Your task to perform on an android device: delete a single message in the gmail app Image 0: 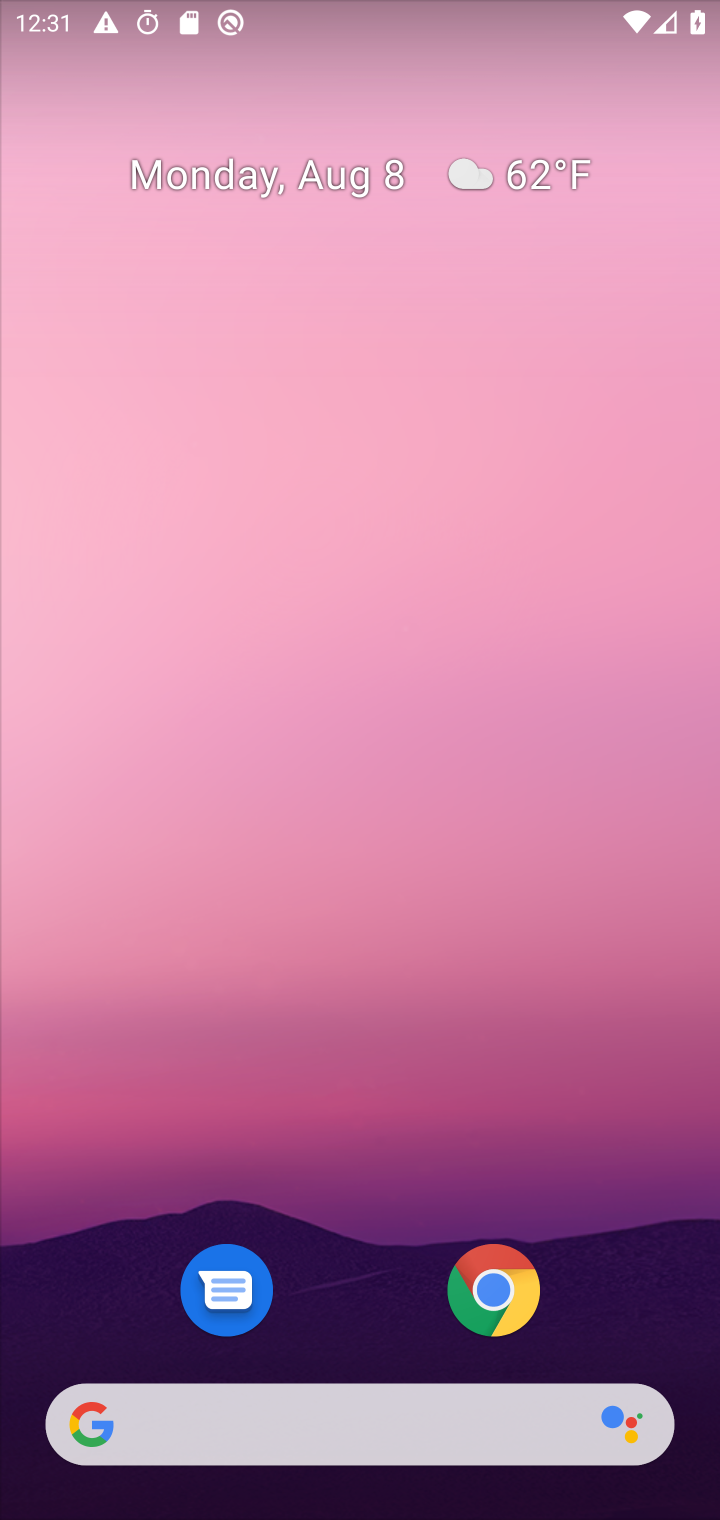
Step 0: drag from (334, 1240) to (399, 542)
Your task to perform on an android device: delete a single message in the gmail app Image 1: 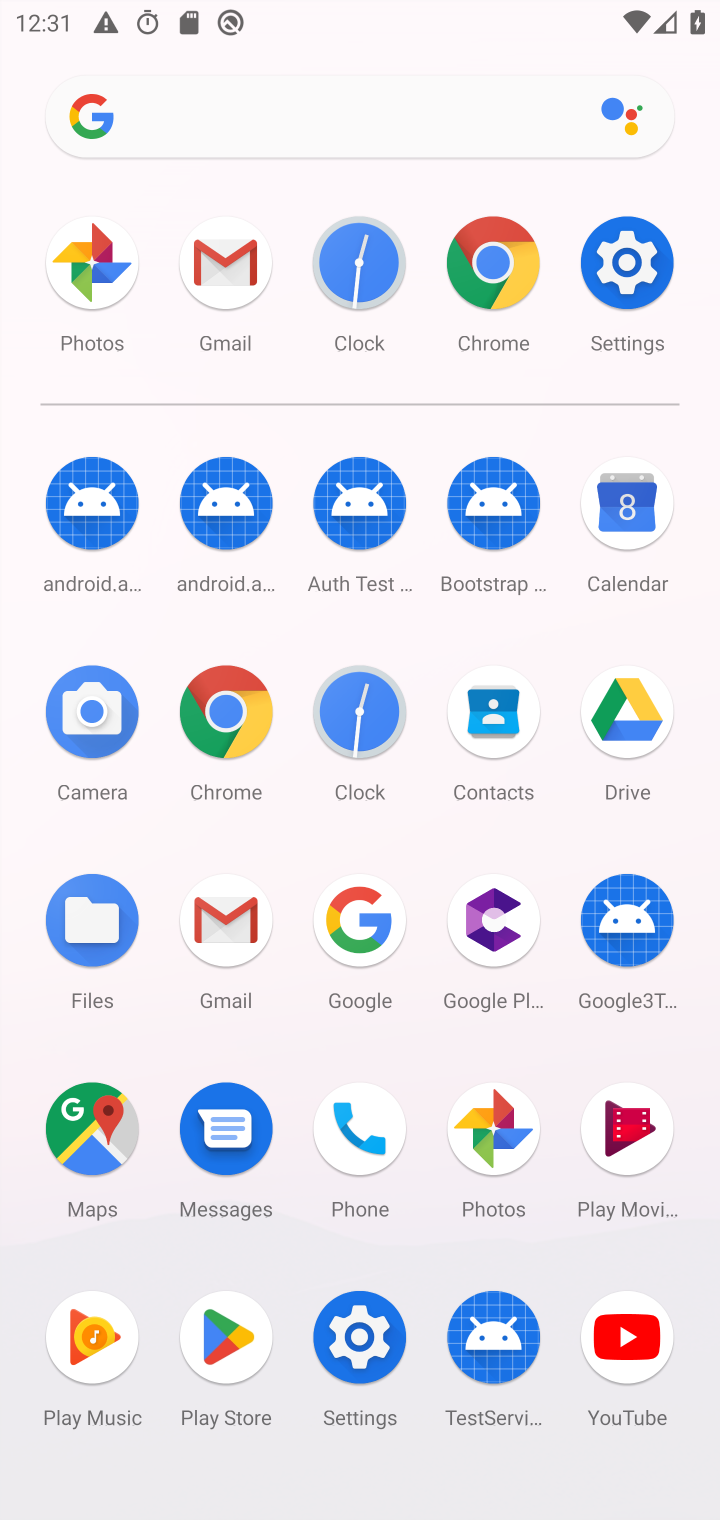
Step 1: click (231, 947)
Your task to perform on an android device: delete a single message in the gmail app Image 2: 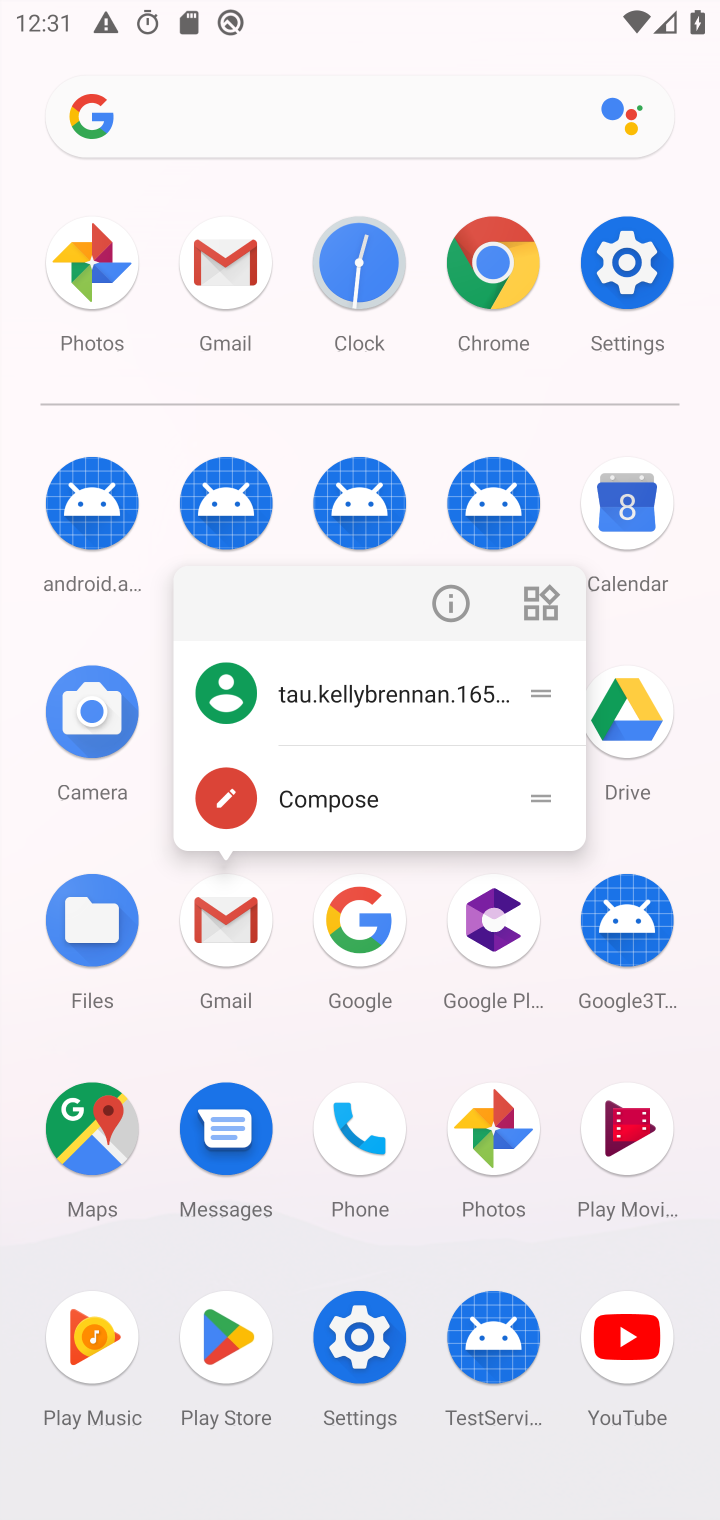
Step 2: click (231, 947)
Your task to perform on an android device: delete a single message in the gmail app Image 3: 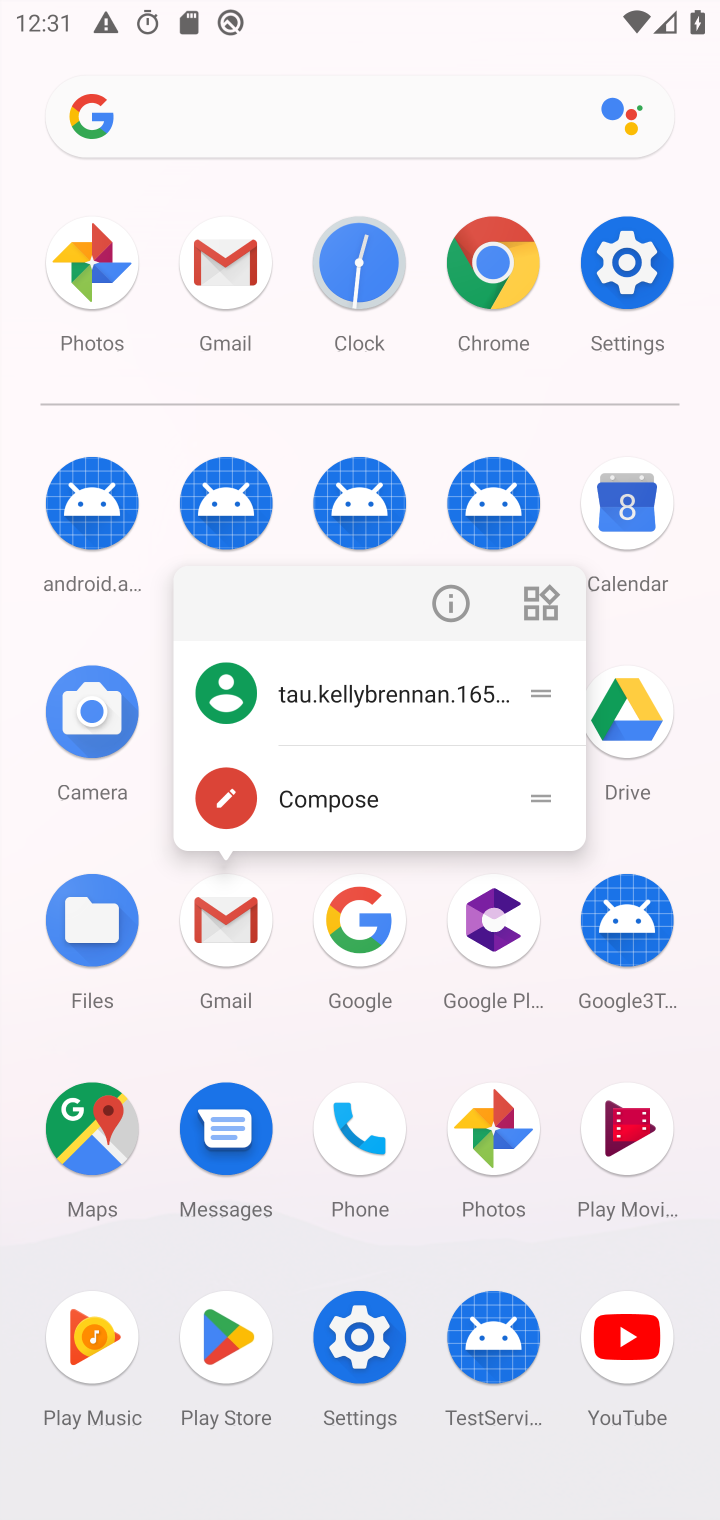
Step 3: click (227, 949)
Your task to perform on an android device: delete a single message in the gmail app Image 4: 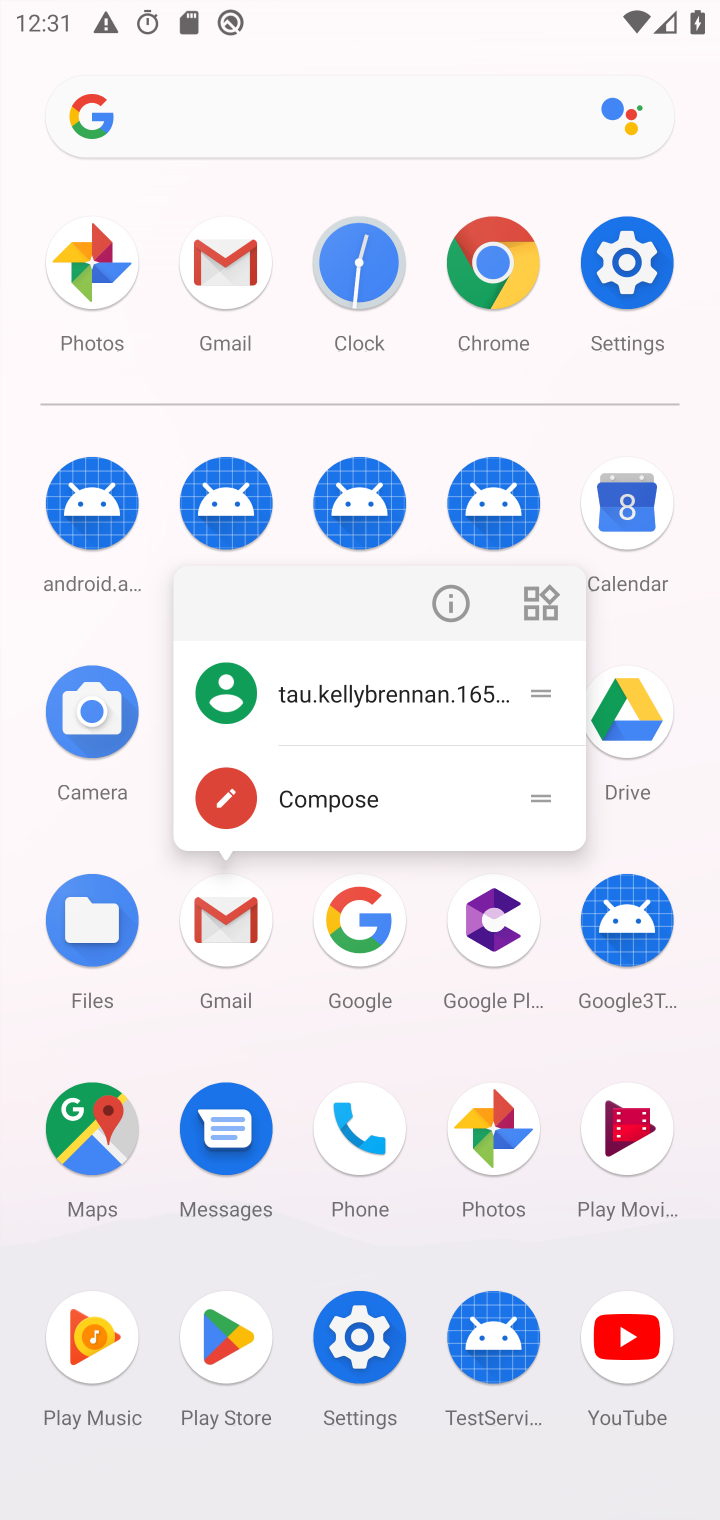
Step 4: click (227, 949)
Your task to perform on an android device: delete a single message in the gmail app Image 5: 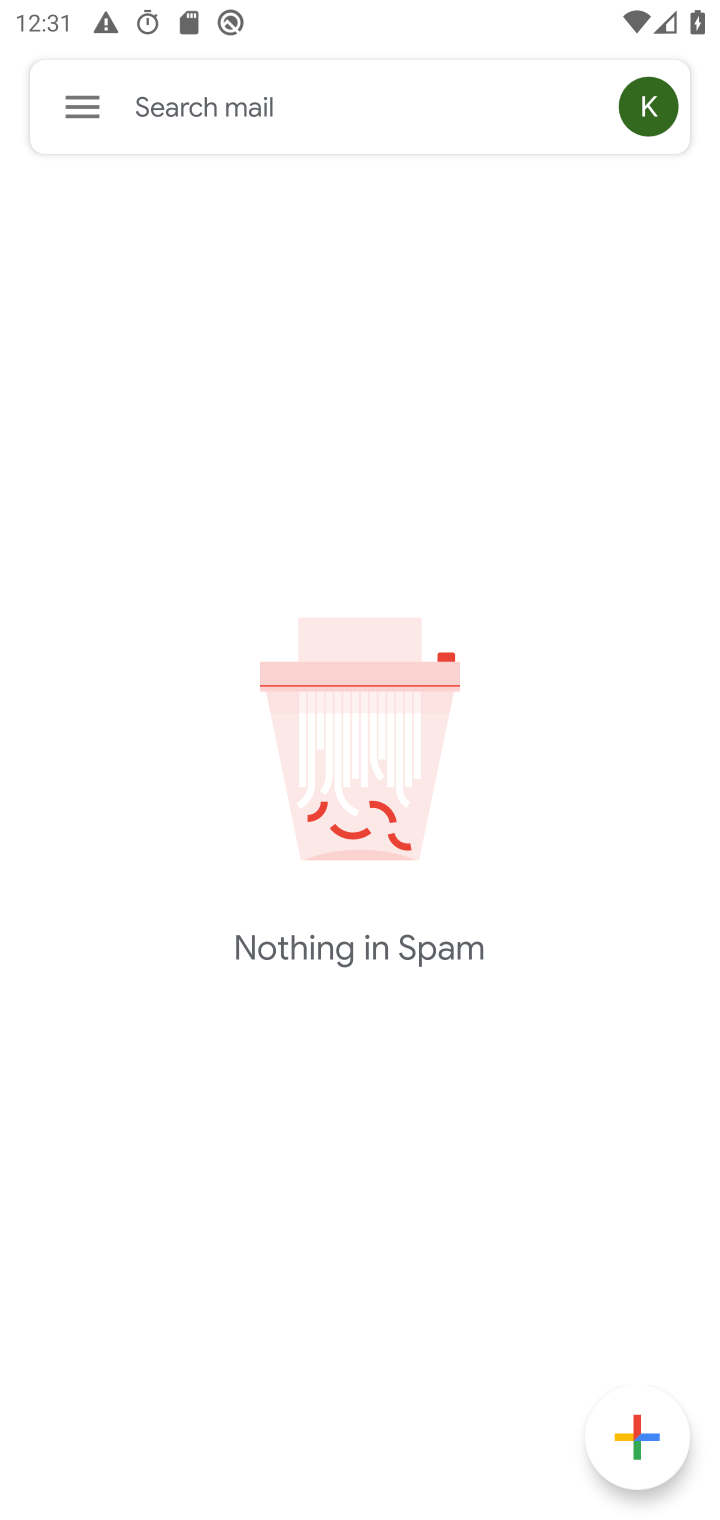
Step 5: click (227, 949)
Your task to perform on an android device: delete a single message in the gmail app Image 6: 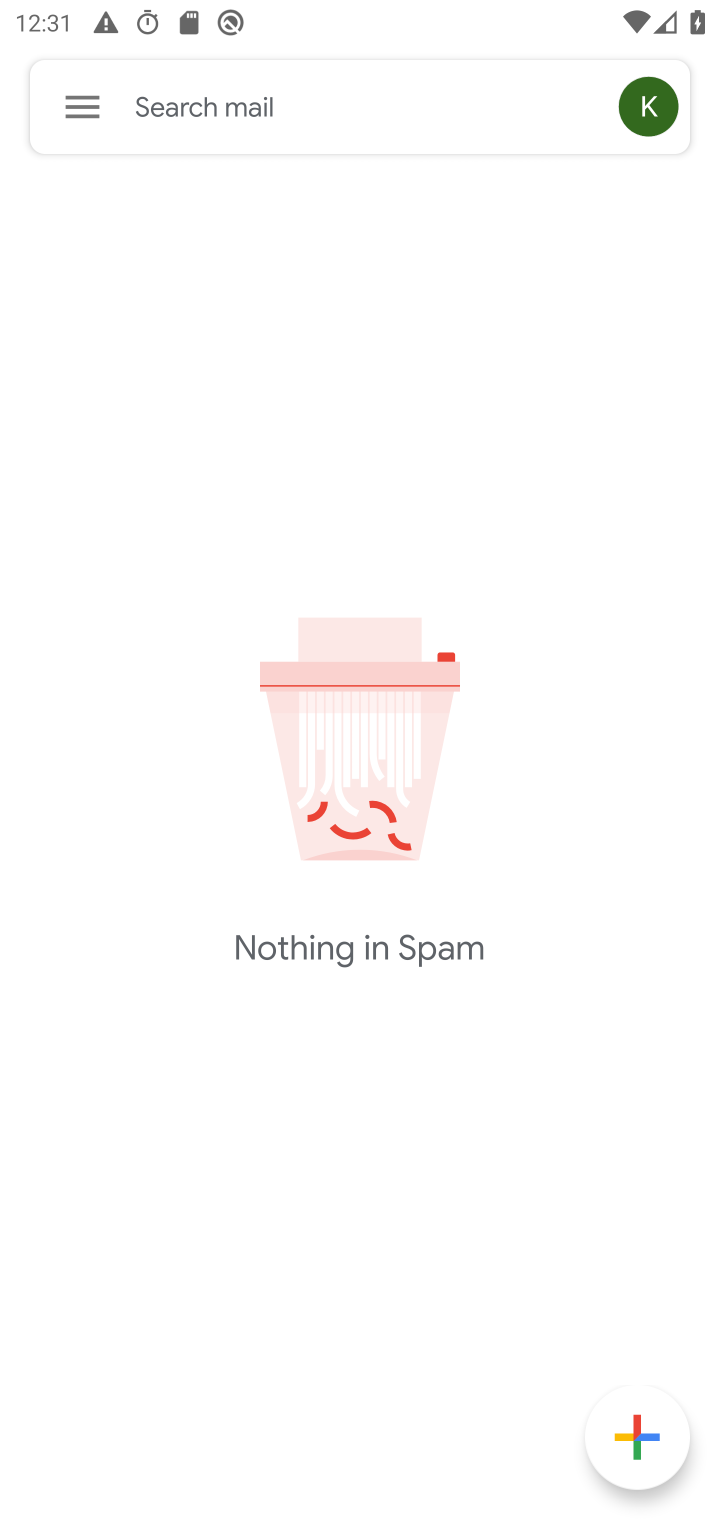
Step 6: click (72, 109)
Your task to perform on an android device: delete a single message in the gmail app Image 7: 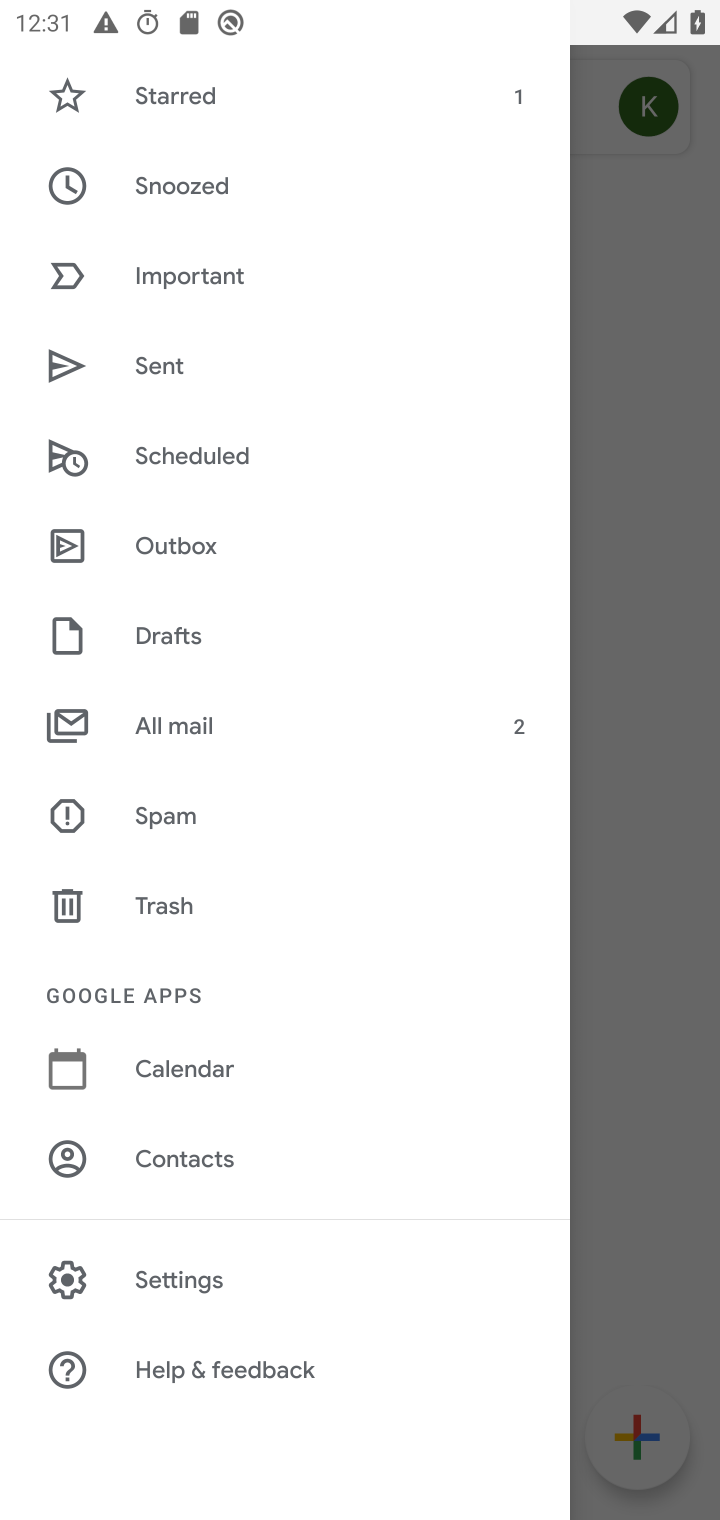
Step 7: drag from (222, 312) to (316, 1473)
Your task to perform on an android device: delete a single message in the gmail app Image 8: 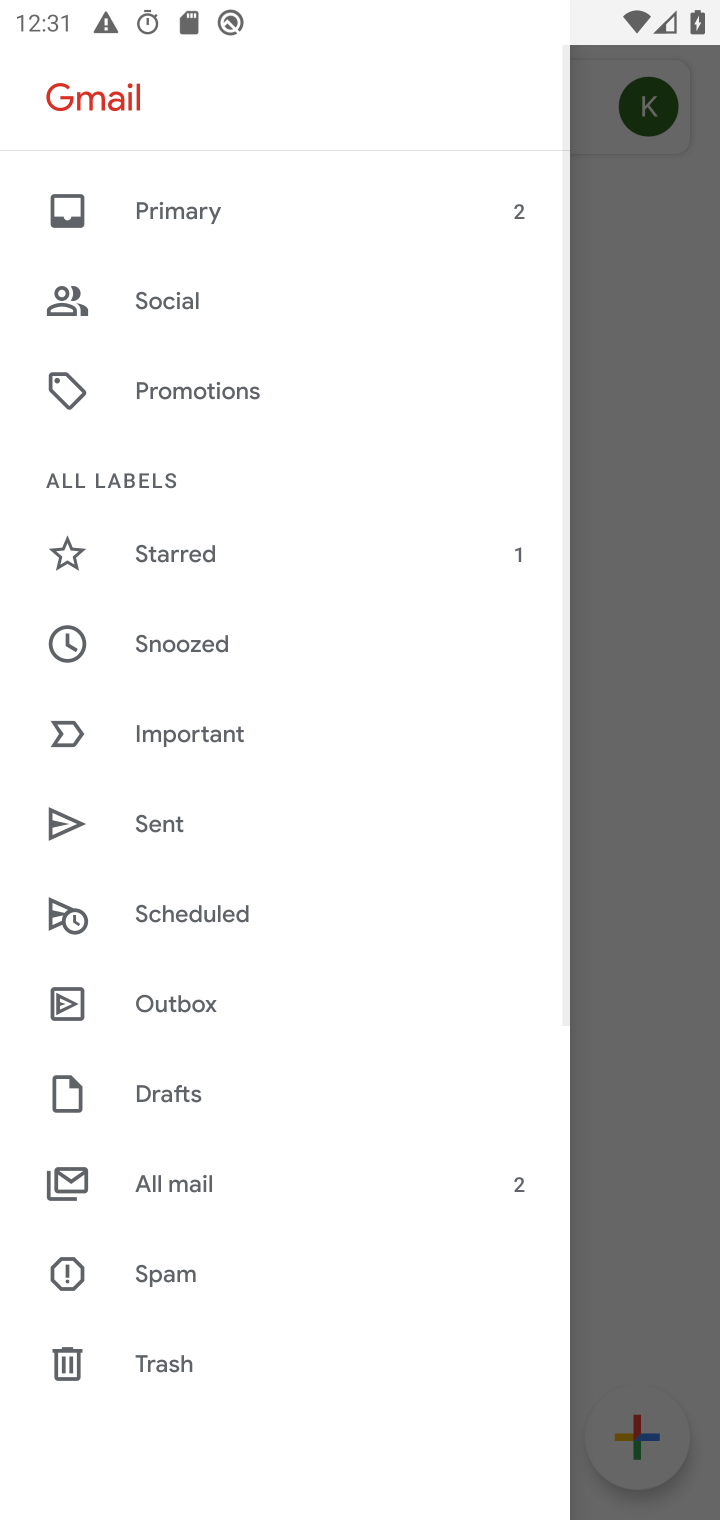
Step 8: drag from (186, 327) to (270, 1184)
Your task to perform on an android device: delete a single message in the gmail app Image 9: 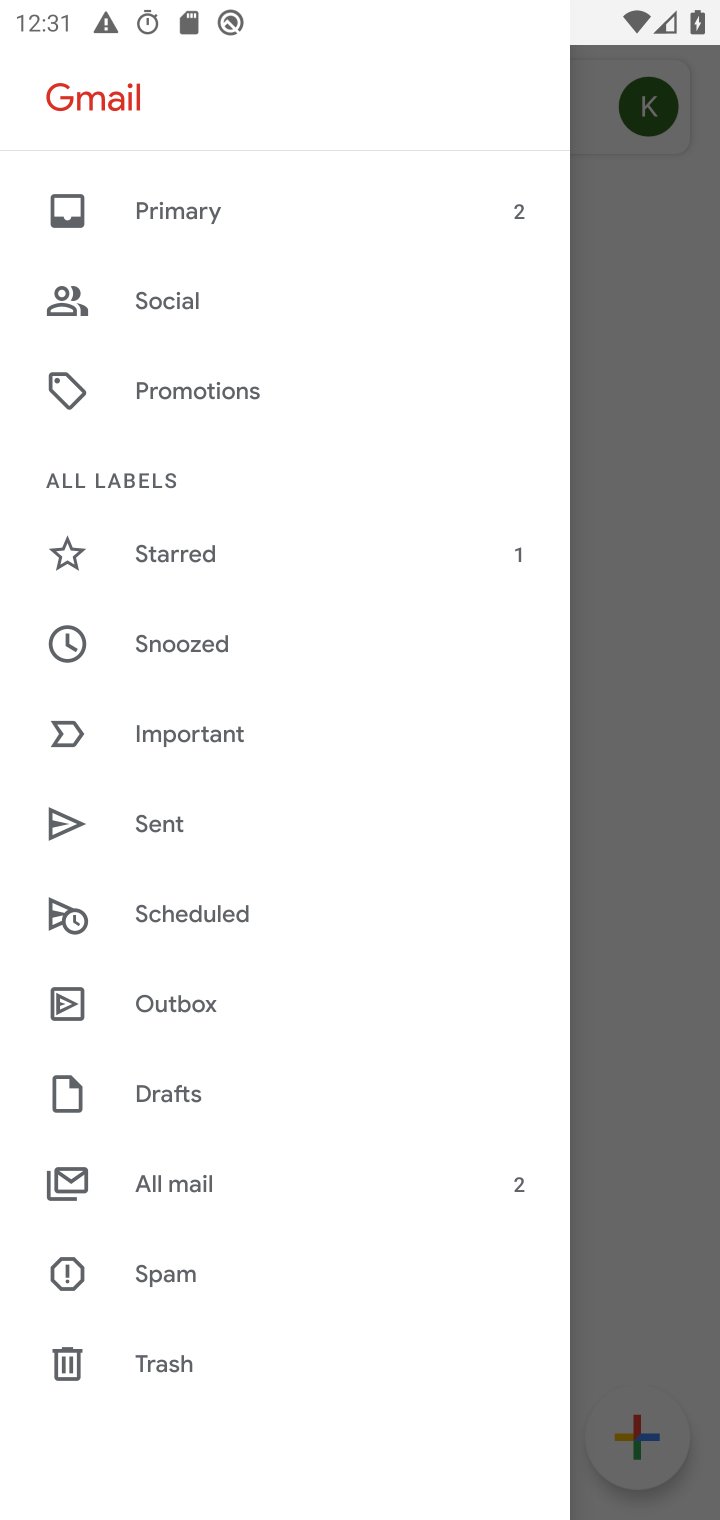
Step 9: click (200, 223)
Your task to perform on an android device: delete a single message in the gmail app Image 10: 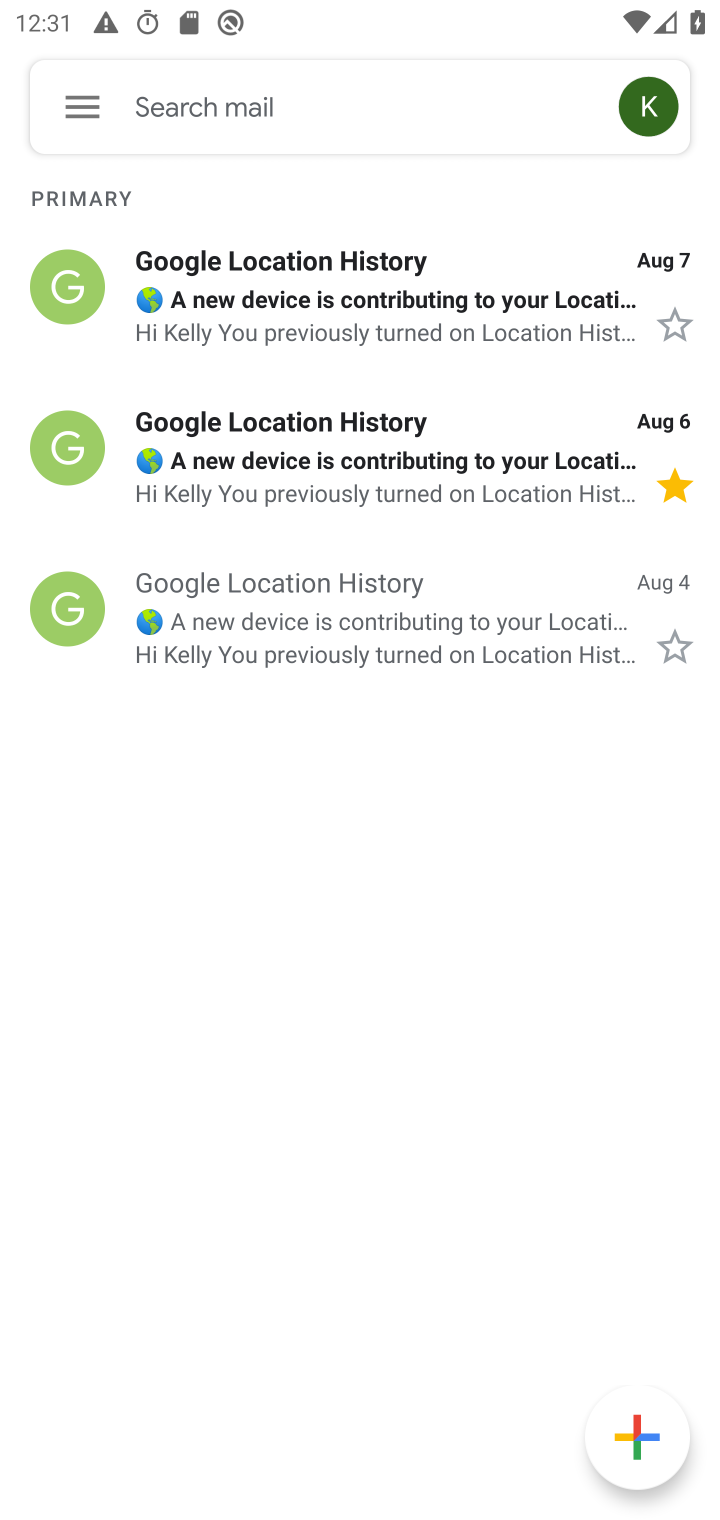
Step 10: click (60, 584)
Your task to perform on an android device: delete a single message in the gmail app Image 11: 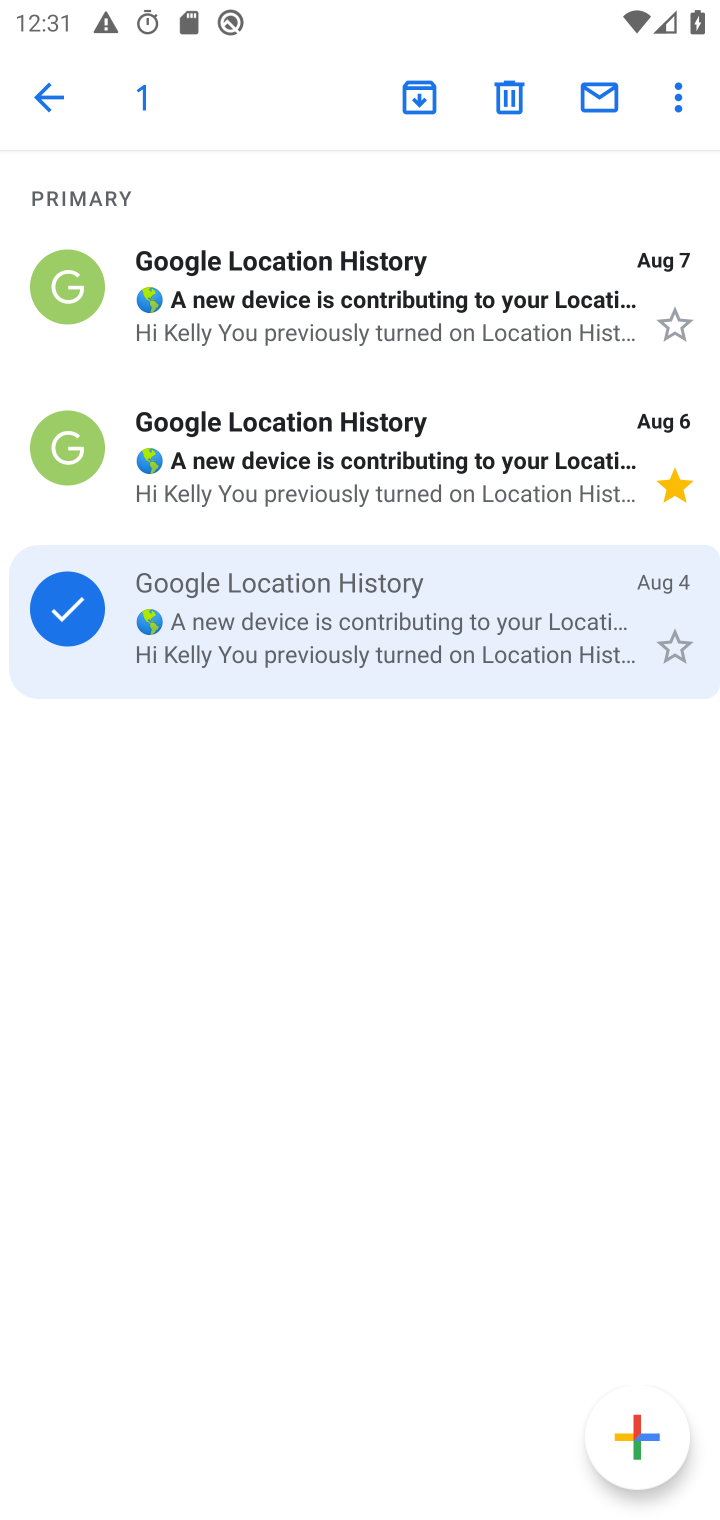
Step 11: click (504, 96)
Your task to perform on an android device: delete a single message in the gmail app Image 12: 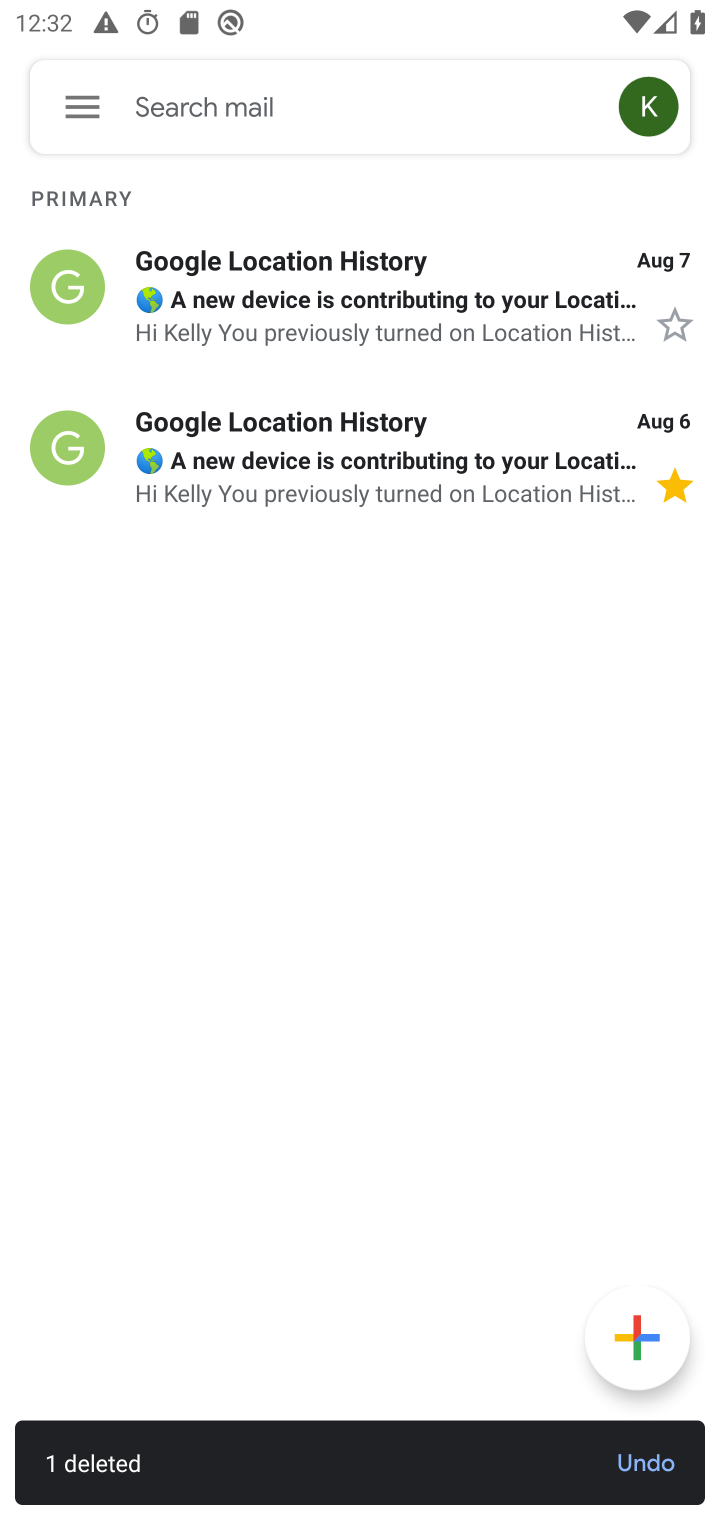
Step 12: task complete